Your task to perform on an android device: see sites visited before in the chrome app Image 0: 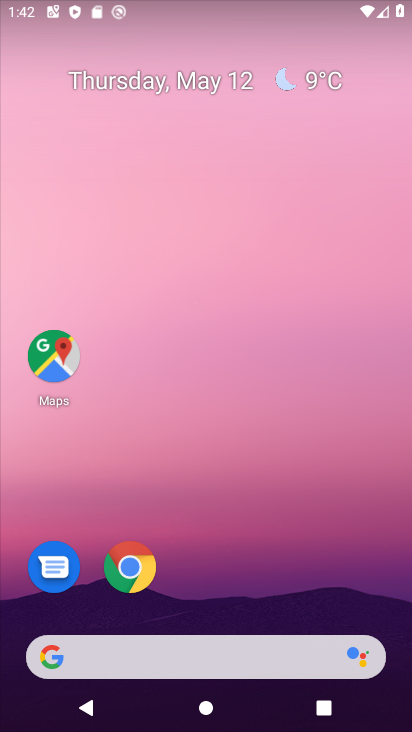
Step 0: drag from (217, 622) to (212, 206)
Your task to perform on an android device: see sites visited before in the chrome app Image 1: 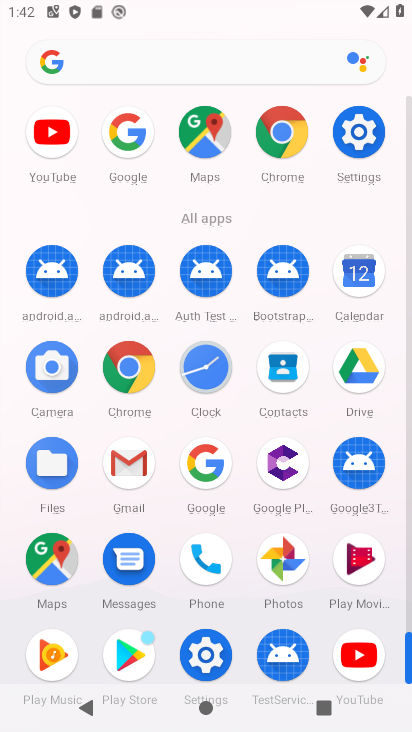
Step 1: click (259, 171)
Your task to perform on an android device: see sites visited before in the chrome app Image 2: 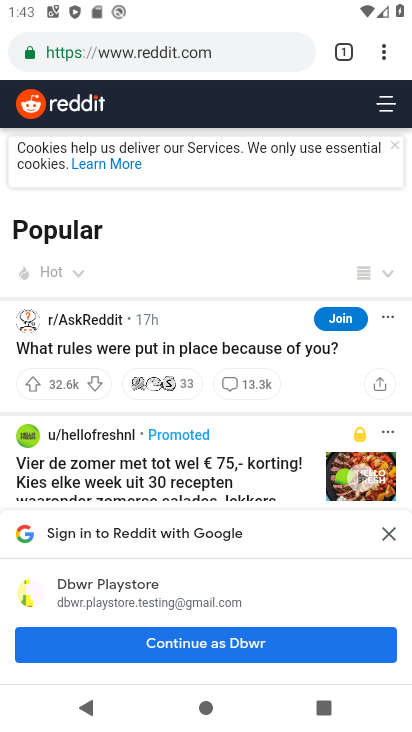
Step 2: click (382, 55)
Your task to perform on an android device: see sites visited before in the chrome app Image 3: 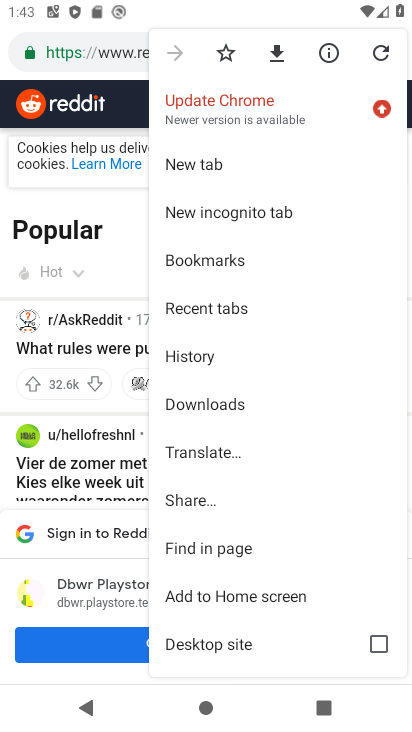
Step 3: click (220, 352)
Your task to perform on an android device: see sites visited before in the chrome app Image 4: 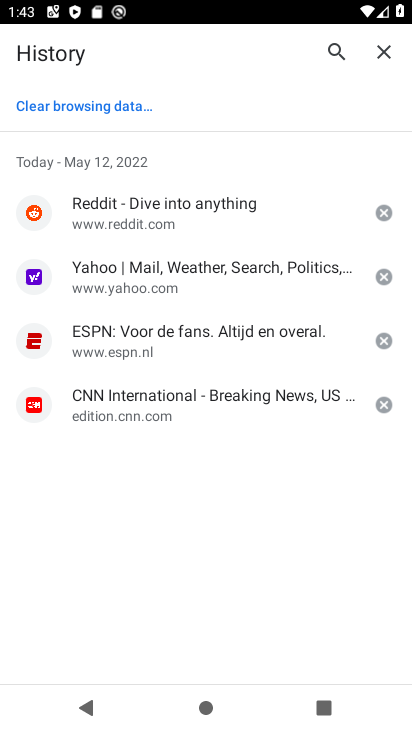
Step 4: task complete